Your task to perform on an android device: Open my contact list Image 0: 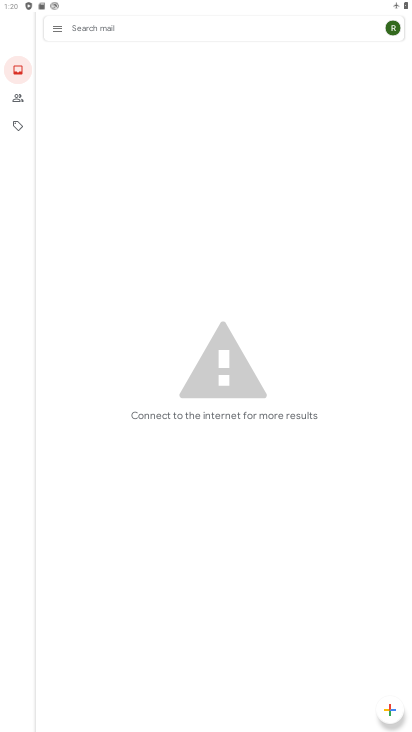
Step 0: press home button
Your task to perform on an android device: Open my contact list Image 1: 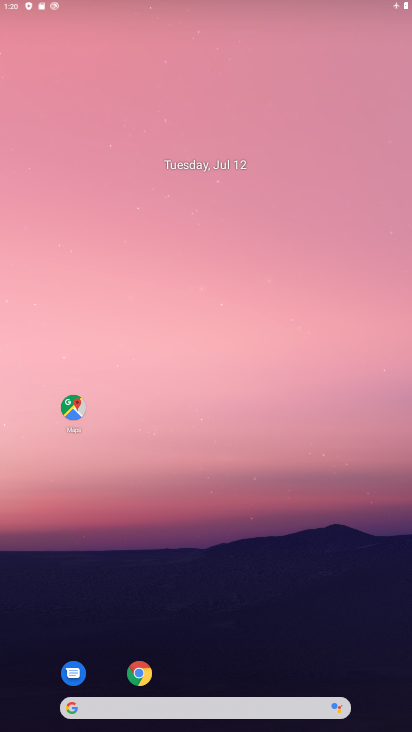
Step 1: drag from (207, 661) to (261, 353)
Your task to perform on an android device: Open my contact list Image 2: 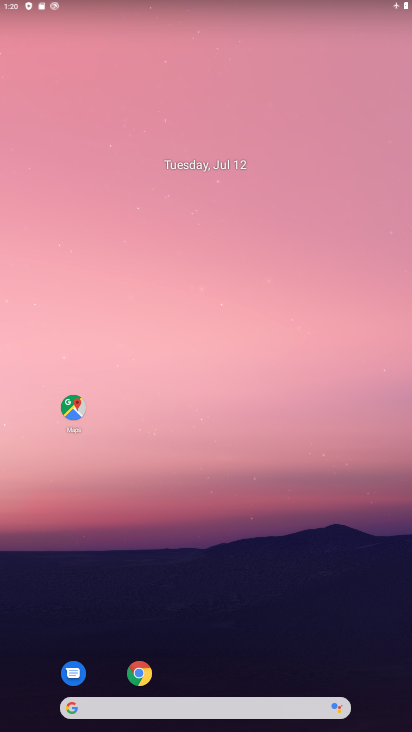
Step 2: drag from (188, 659) to (237, 381)
Your task to perform on an android device: Open my contact list Image 3: 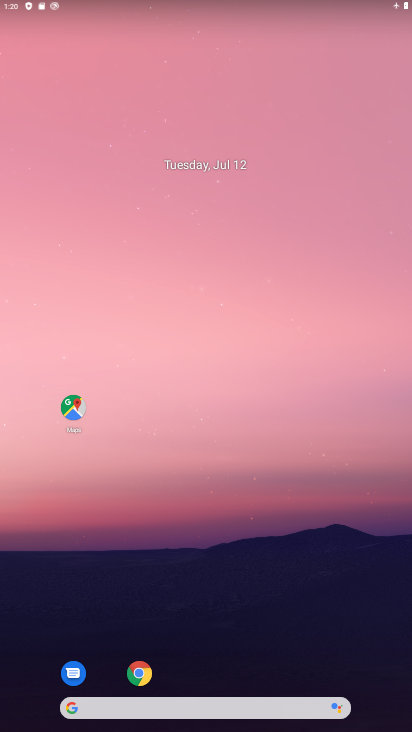
Step 3: click (235, 210)
Your task to perform on an android device: Open my contact list Image 4: 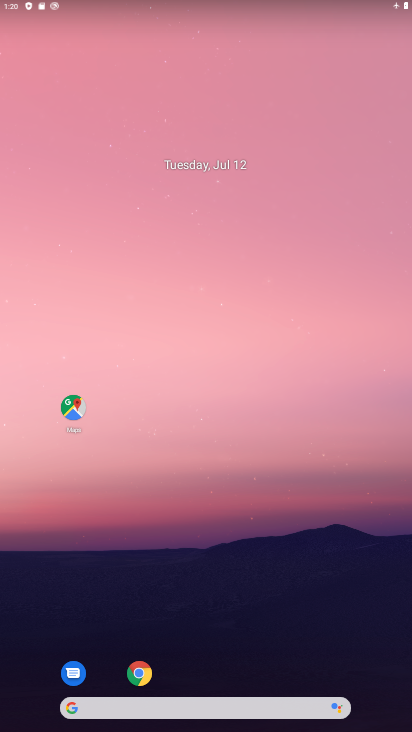
Step 4: drag from (222, 623) to (233, 330)
Your task to perform on an android device: Open my contact list Image 5: 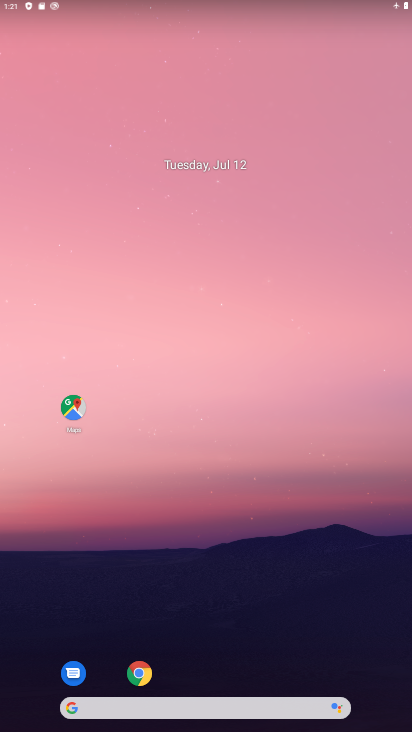
Step 5: drag from (233, 630) to (250, 290)
Your task to perform on an android device: Open my contact list Image 6: 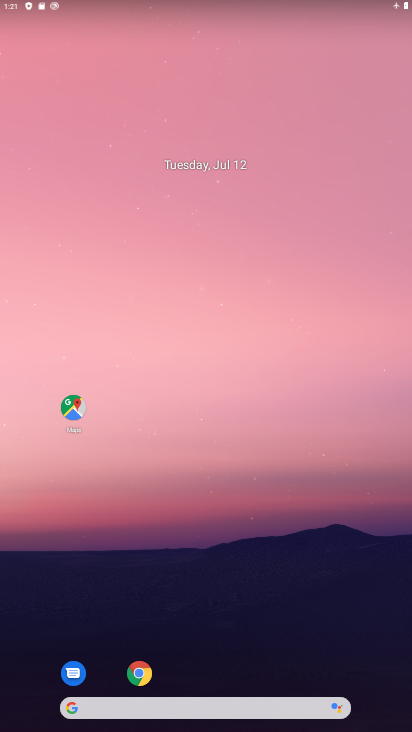
Step 6: drag from (274, 664) to (285, 192)
Your task to perform on an android device: Open my contact list Image 7: 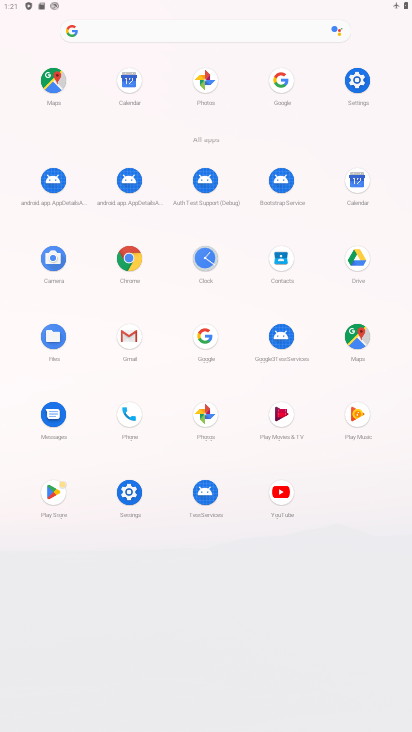
Step 7: click (135, 404)
Your task to perform on an android device: Open my contact list Image 8: 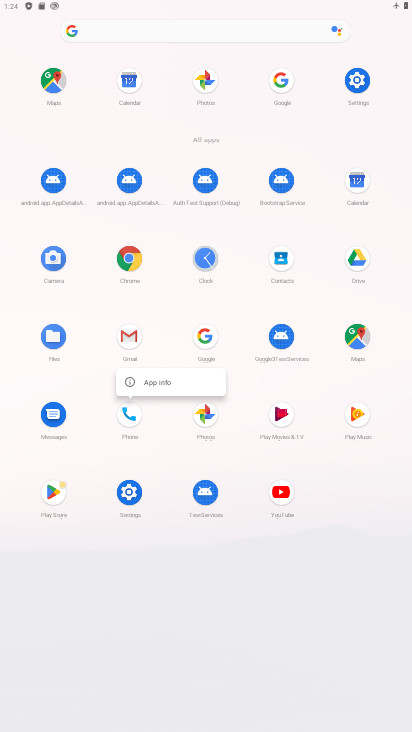
Step 8: click (129, 405)
Your task to perform on an android device: Open my contact list Image 9: 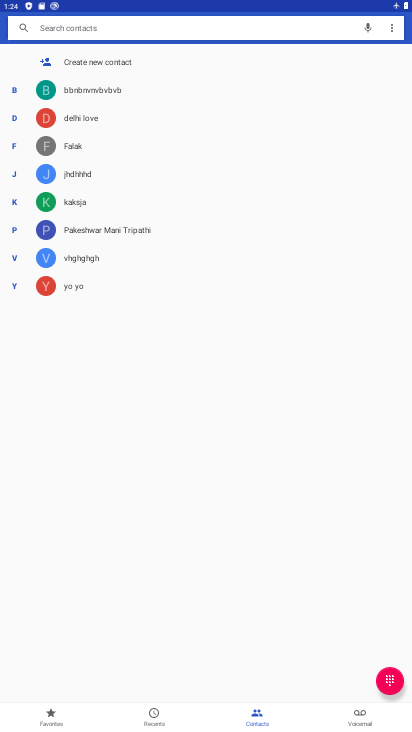
Step 9: task complete